Your task to perform on an android device: turn off notifications settings in the gmail app Image 0: 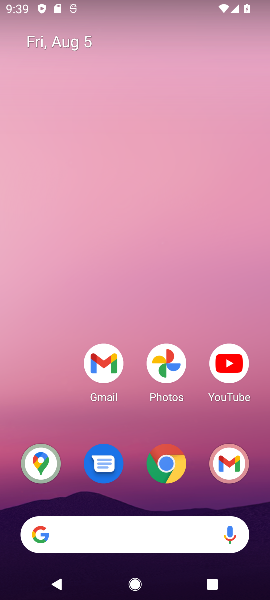
Step 0: click (113, 129)
Your task to perform on an android device: turn off notifications settings in the gmail app Image 1: 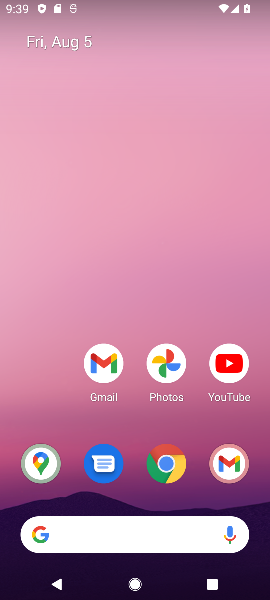
Step 1: drag from (186, 399) to (203, 2)
Your task to perform on an android device: turn off notifications settings in the gmail app Image 2: 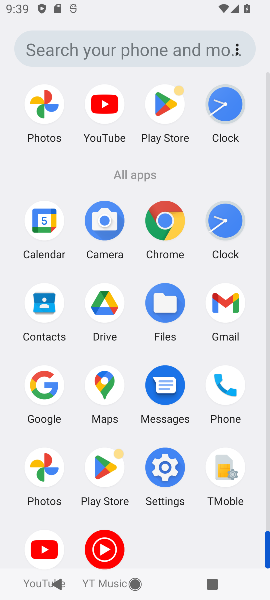
Step 2: click (226, 311)
Your task to perform on an android device: turn off notifications settings in the gmail app Image 3: 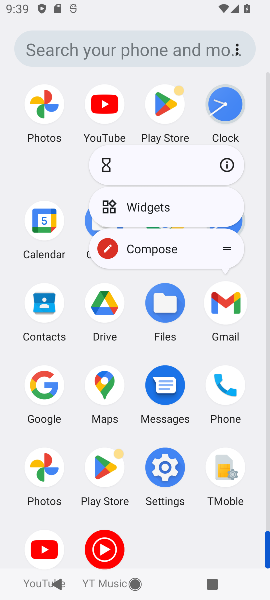
Step 3: click (222, 301)
Your task to perform on an android device: turn off notifications settings in the gmail app Image 4: 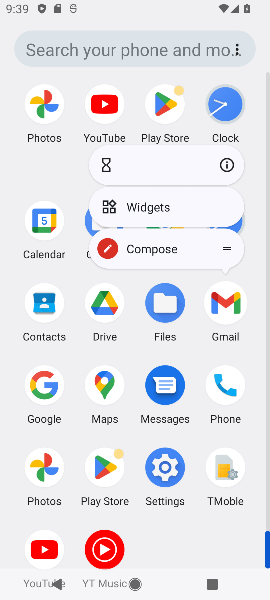
Step 4: click (222, 301)
Your task to perform on an android device: turn off notifications settings in the gmail app Image 5: 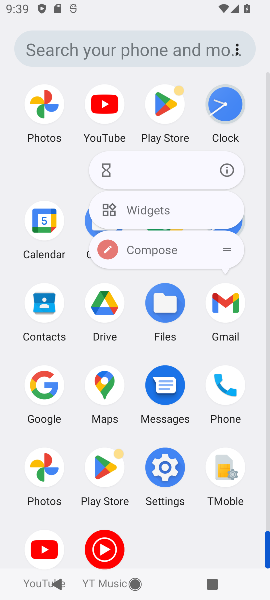
Step 5: click (222, 300)
Your task to perform on an android device: turn off notifications settings in the gmail app Image 6: 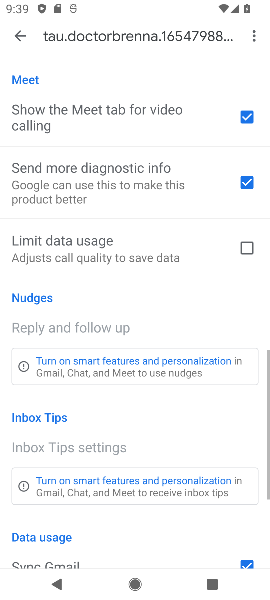
Step 6: click (222, 302)
Your task to perform on an android device: turn off notifications settings in the gmail app Image 7: 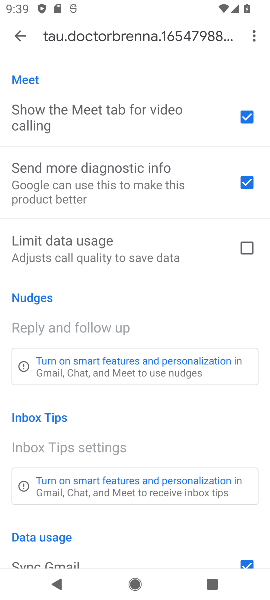
Step 7: click (19, 30)
Your task to perform on an android device: turn off notifications settings in the gmail app Image 8: 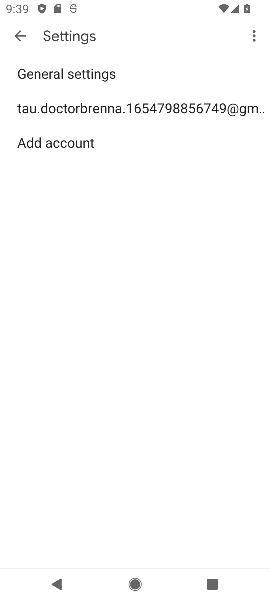
Step 8: click (62, 113)
Your task to perform on an android device: turn off notifications settings in the gmail app Image 9: 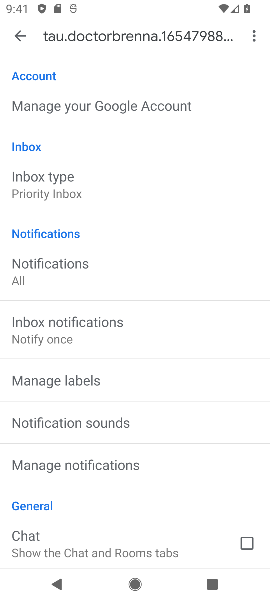
Step 9: click (40, 269)
Your task to perform on an android device: turn off notifications settings in the gmail app Image 10: 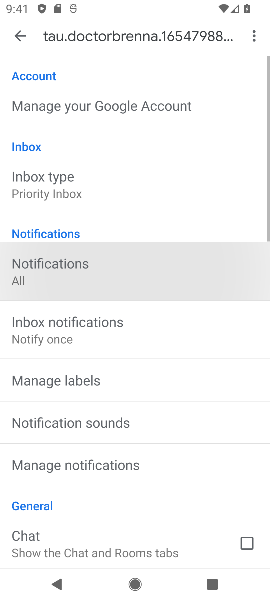
Step 10: click (40, 269)
Your task to perform on an android device: turn off notifications settings in the gmail app Image 11: 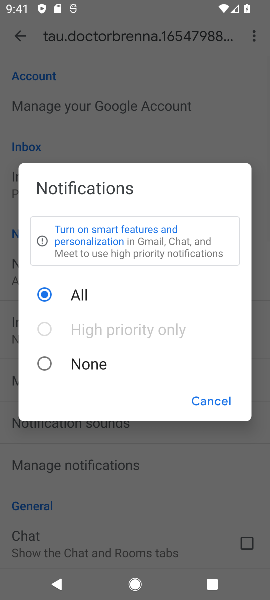
Step 11: click (43, 360)
Your task to perform on an android device: turn off notifications settings in the gmail app Image 12: 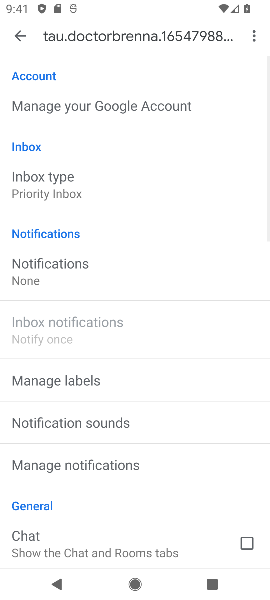
Step 12: task complete